Your task to perform on an android device: Toggle the flashlight Image 0: 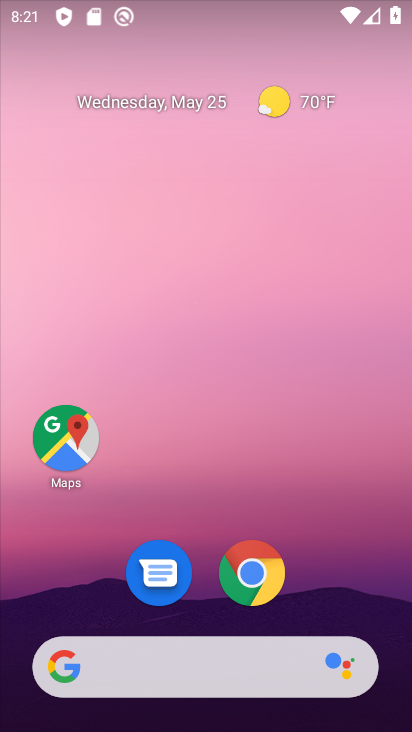
Step 0: drag from (351, 599) to (296, 217)
Your task to perform on an android device: Toggle the flashlight Image 1: 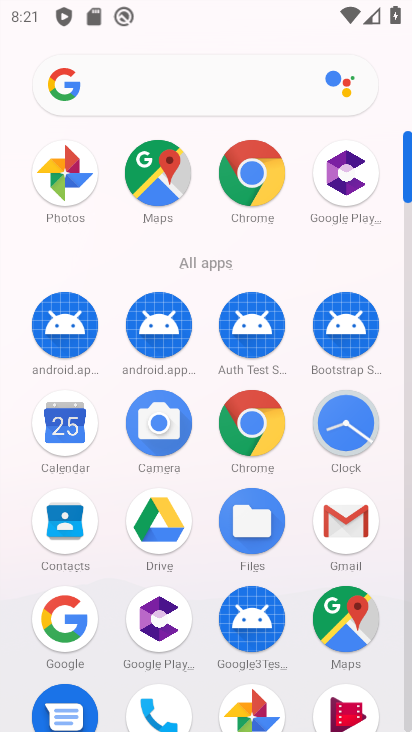
Step 1: drag from (269, 9) to (229, 718)
Your task to perform on an android device: Toggle the flashlight Image 2: 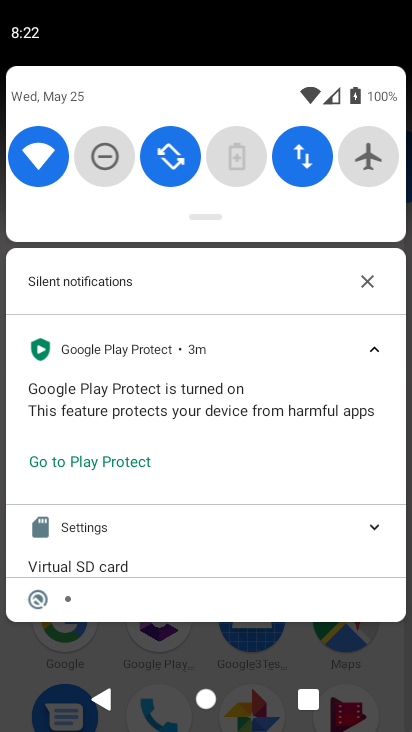
Step 2: drag from (200, 182) to (207, 553)
Your task to perform on an android device: Toggle the flashlight Image 3: 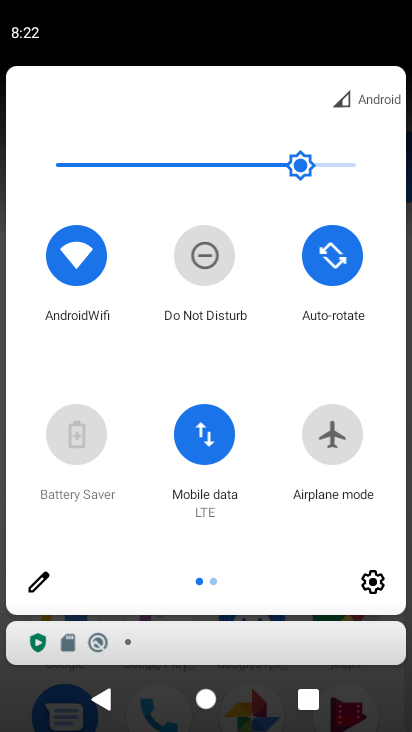
Step 3: click (47, 588)
Your task to perform on an android device: Toggle the flashlight Image 4: 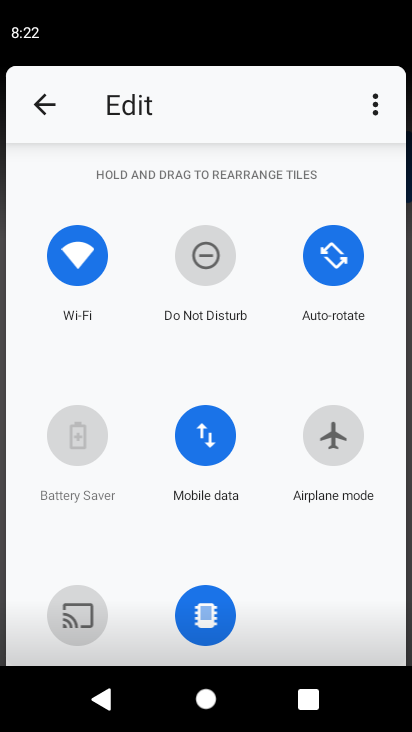
Step 4: task complete